Your task to perform on an android device: Show me recent news Image 0: 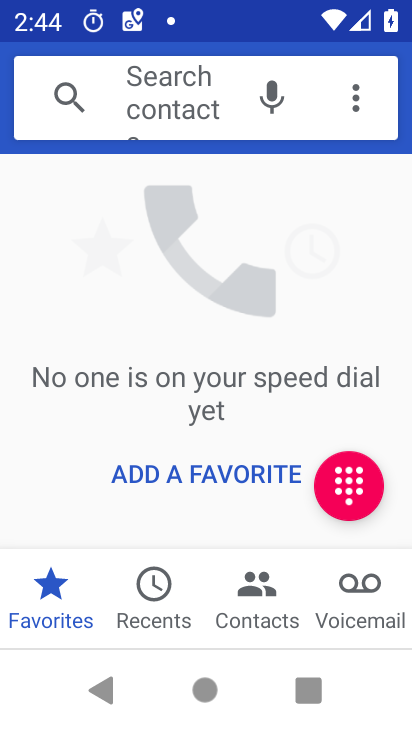
Step 0: press home button
Your task to perform on an android device: Show me recent news Image 1: 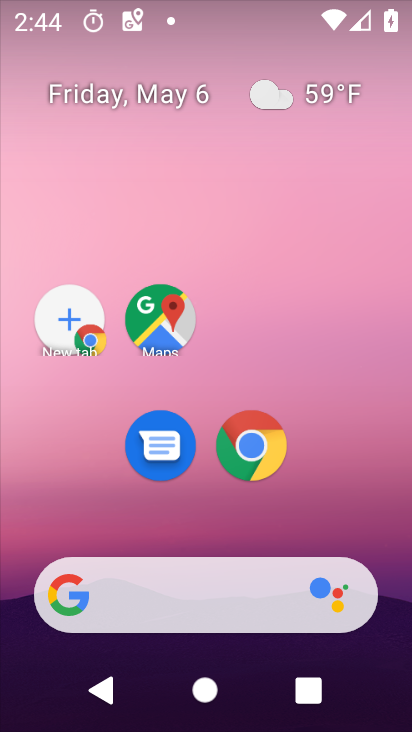
Step 1: task complete